Your task to perform on an android device: uninstall "WhatsApp Messenger" Image 0: 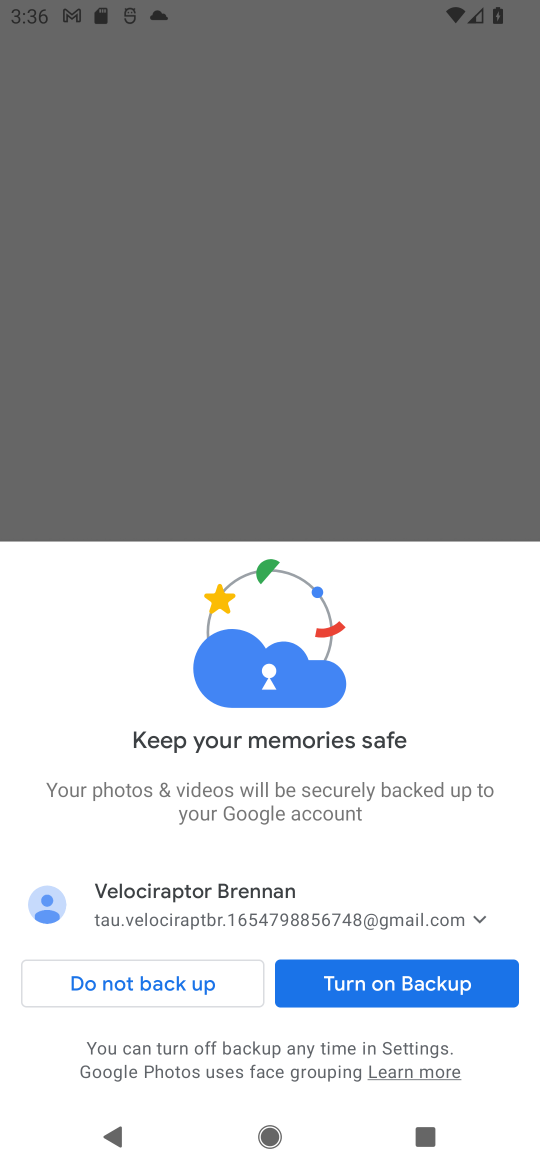
Step 0: press home button
Your task to perform on an android device: uninstall "WhatsApp Messenger" Image 1: 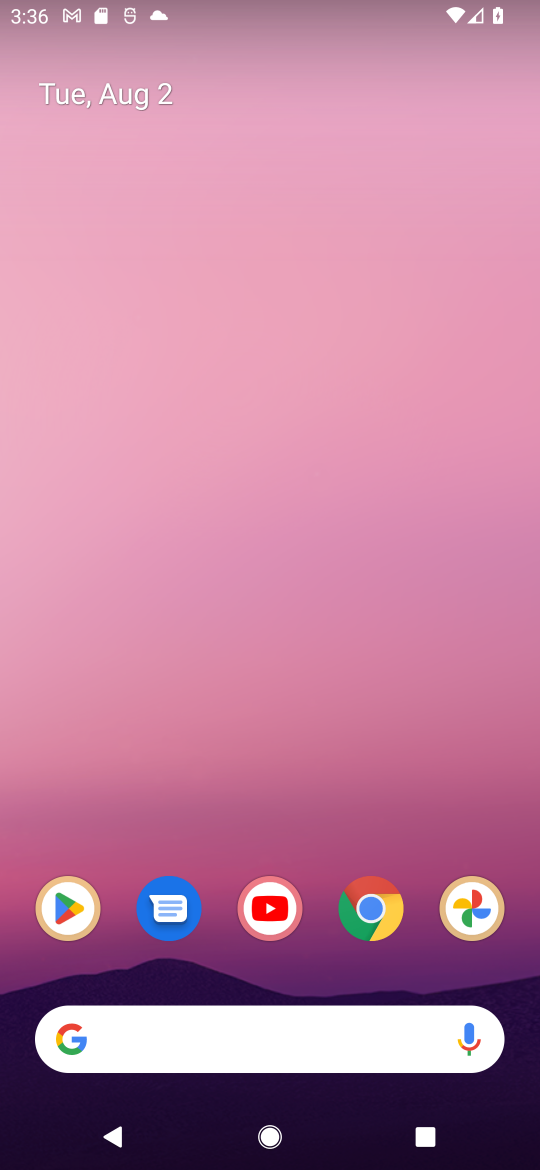
Step 1: click (63, 906)
Your task to perform on an android device: uninstall "WhatsApp Messenger" Image 2: 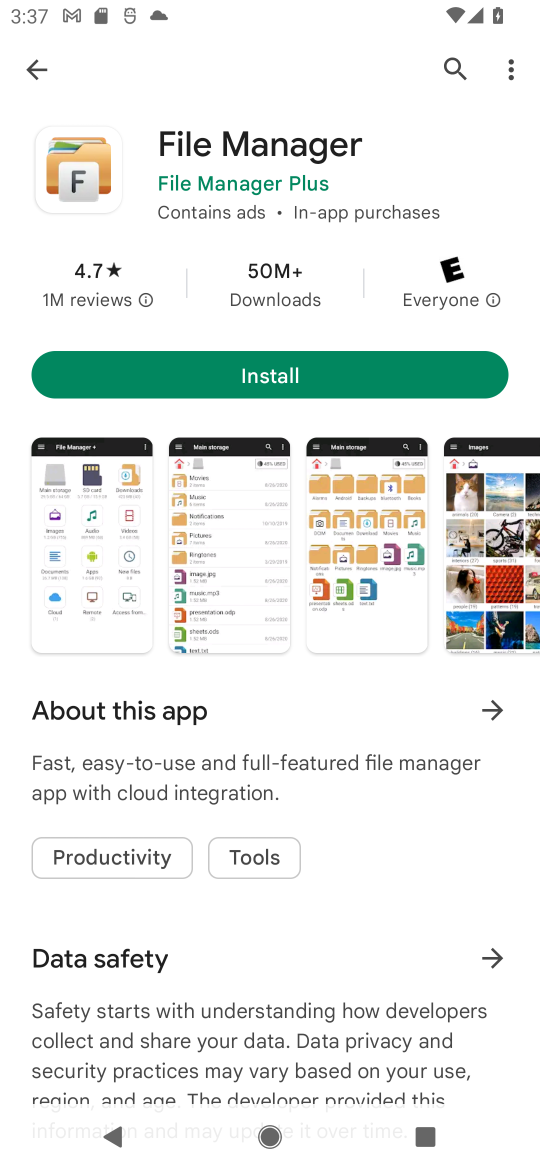
Step 2: click (453, 68)
Your task to perform on an android device: uninstall "WhatsApp Messenger" Image 3: 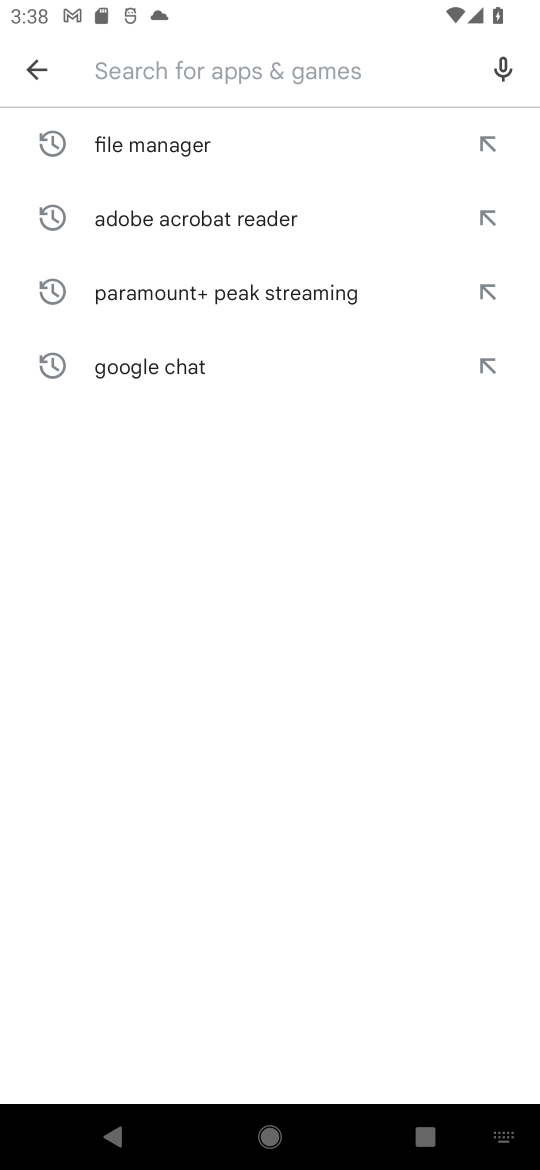
Step 3: type "WhatsApp Messenger"
Your task to perform on an android device: uninstall "WhatsApp Messenger" Image 4: 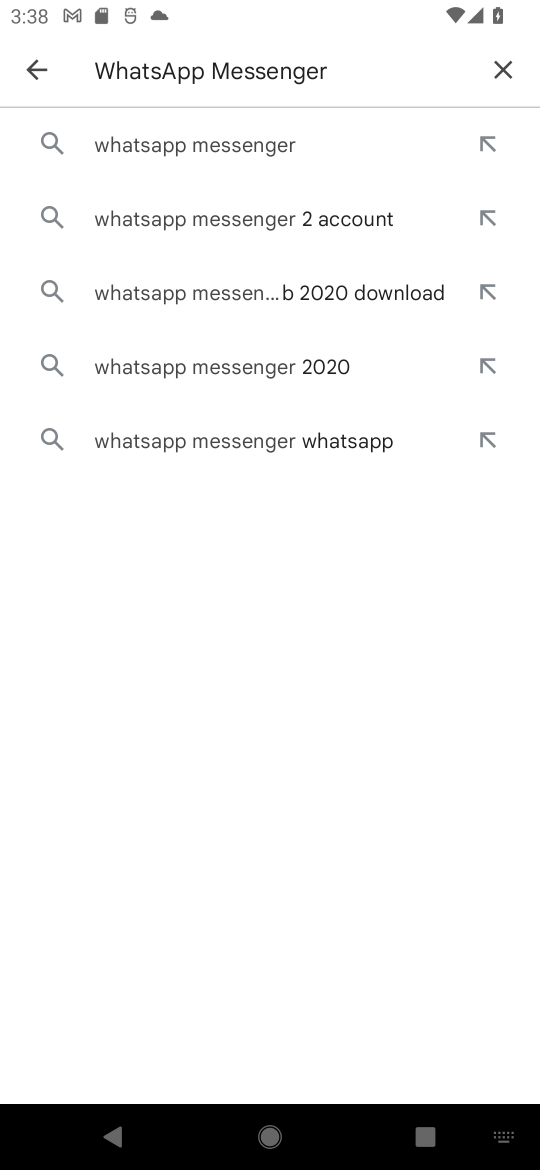
Step 4: click (251, 143)
Your task to perform on an android device: uninstall "WhatsApp Messenger" Image 5: 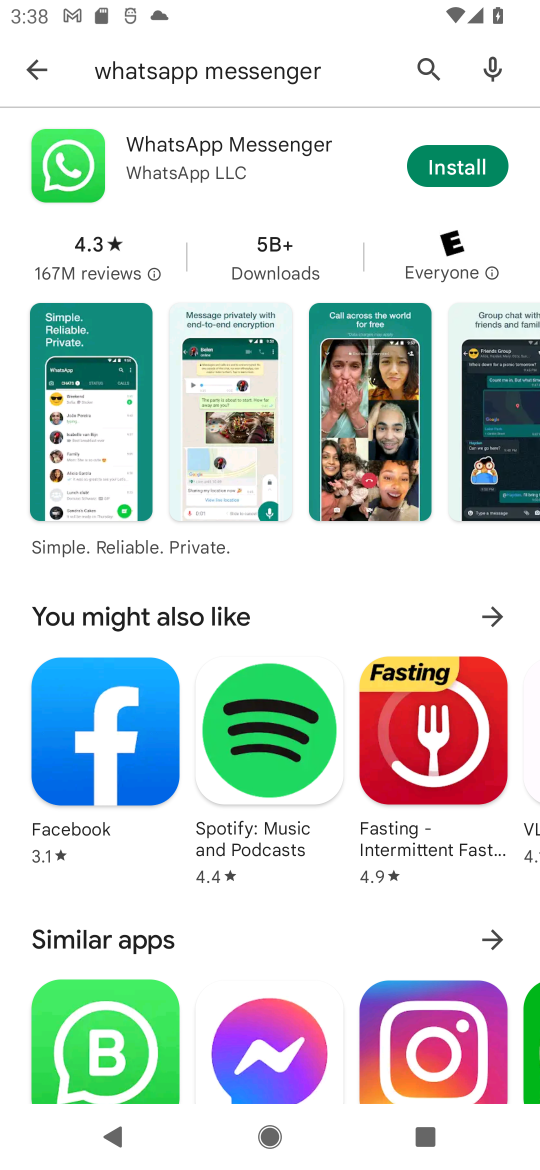
Step 5: task complete